Your task to perform on an android device: Go to settings Image 0: 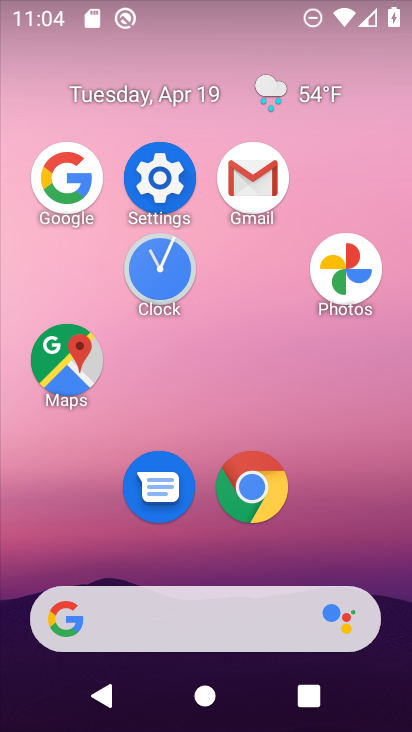
Step 0: click (170, 174)
Your task to perform on an android device: Go to settings Image 1: 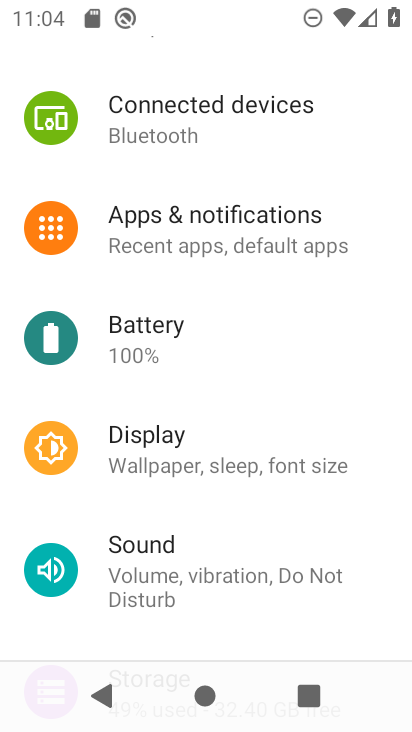
Step 1: task complete